Your task to perform on an android device: star an email in the gmail app Image 0: 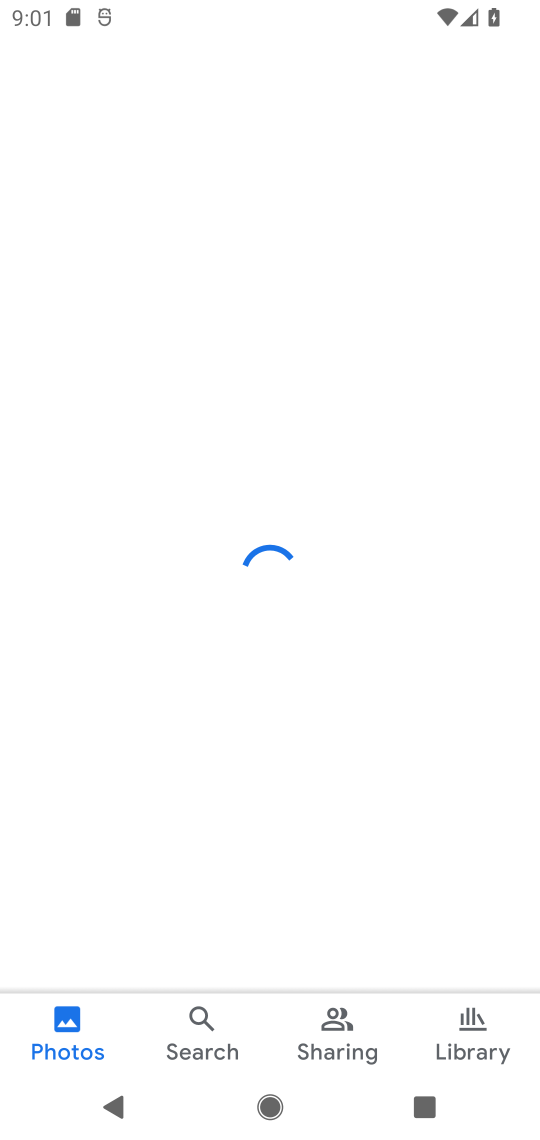
Step 0: press home button
Your task to perform on an android device: star an email in the gmail app Image 1: 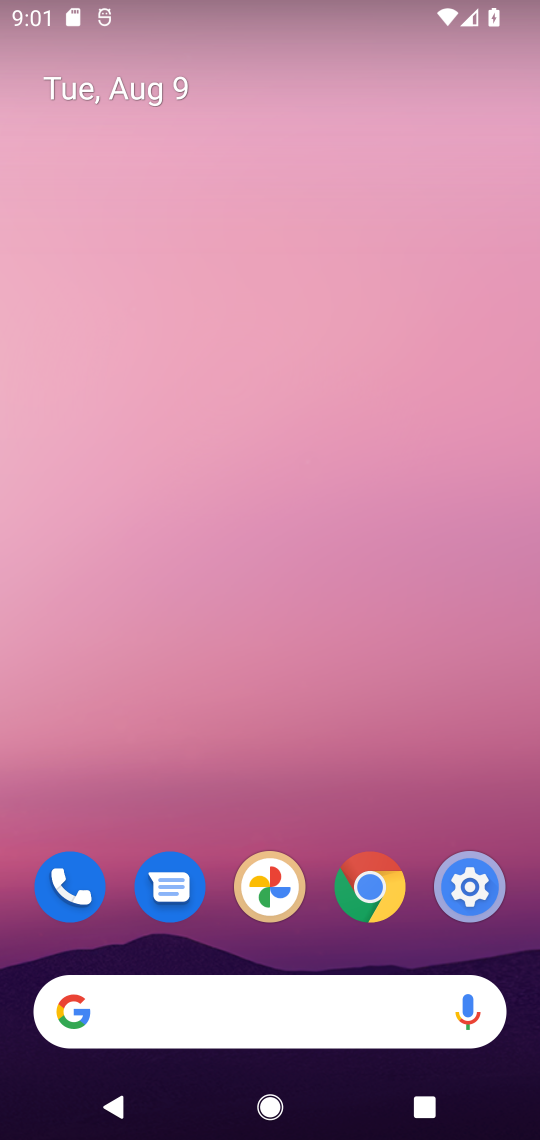
Step 1: drag from (269, 556) to (257, 201)
Your task to perform on an android device: star an email in the gmail app Image 2: 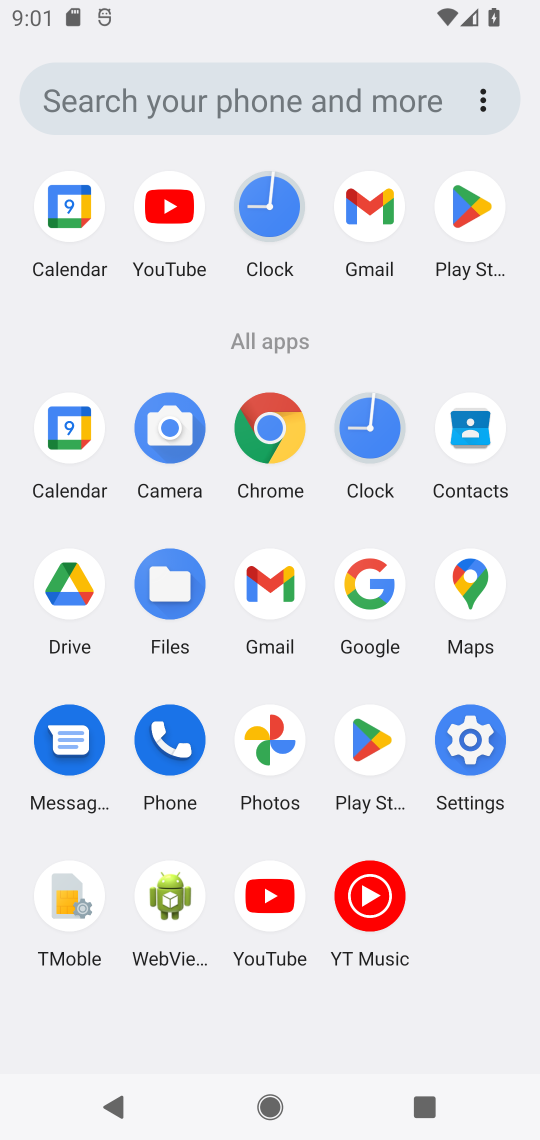
Step 2: click (375, 203)
Your task to perform on an android device: star an email in the gmail app Image 3: 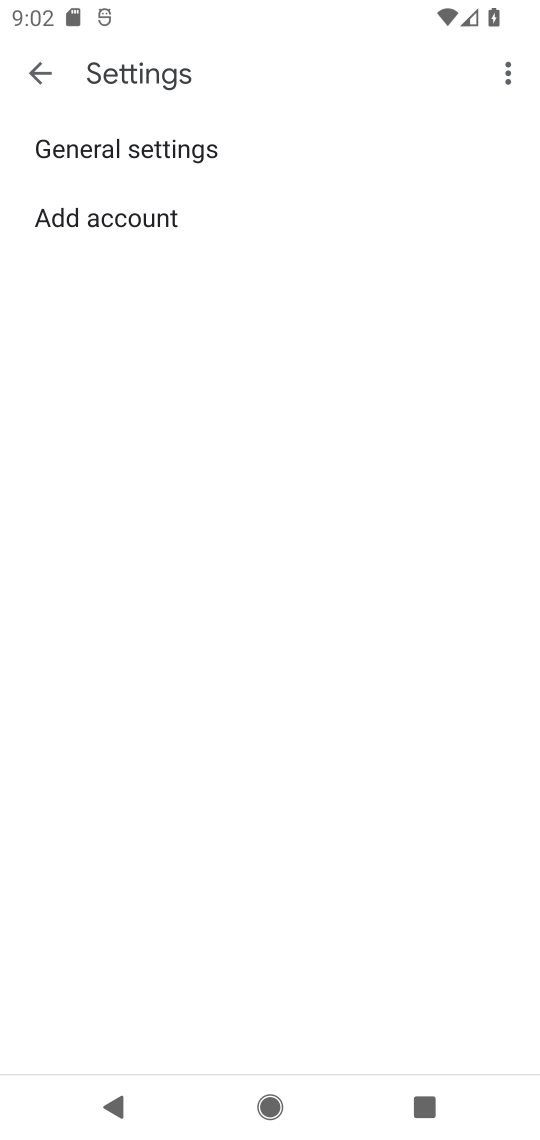
Step 3: click (48, 85)
Your task to perform on an android device: star an email in the gmail app Image 4: 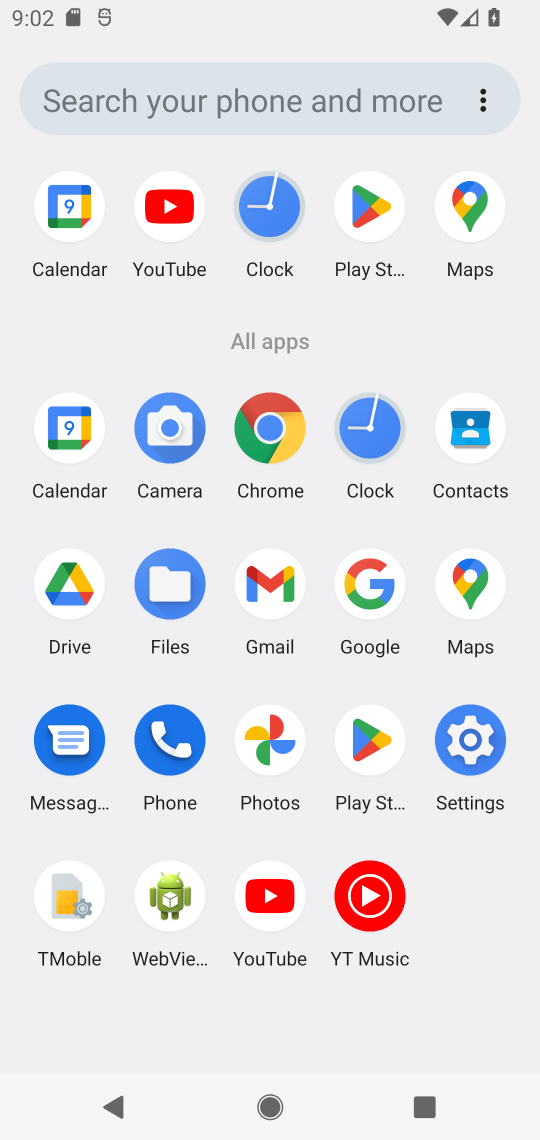
Step 4: click (261, 597)
Your task to perform on an android device: star an email in the gmail app Image 5: 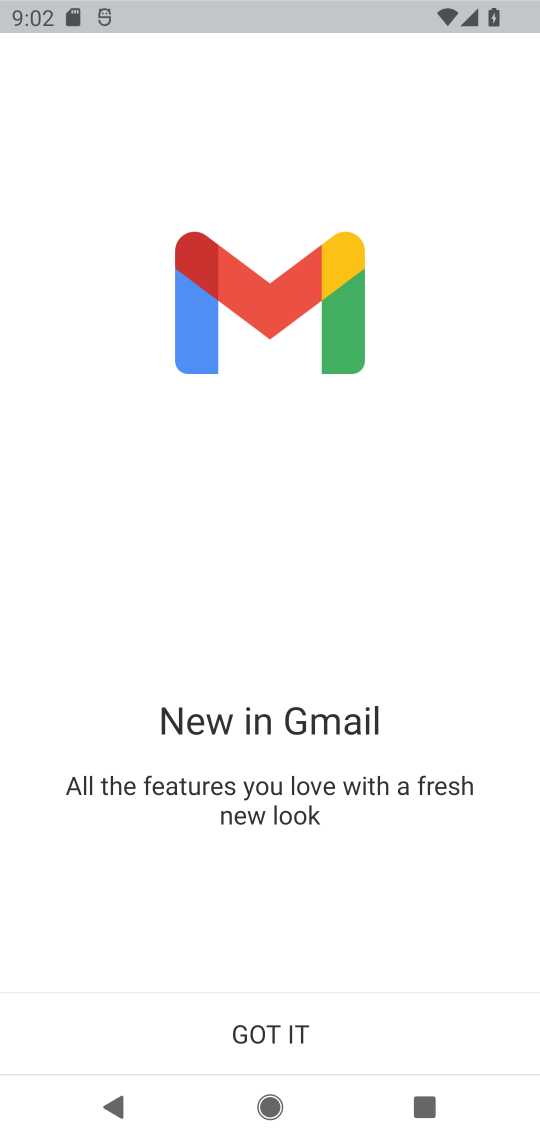
Step 5: task complete